Your task to perform on an android device: add a contact Image 0: 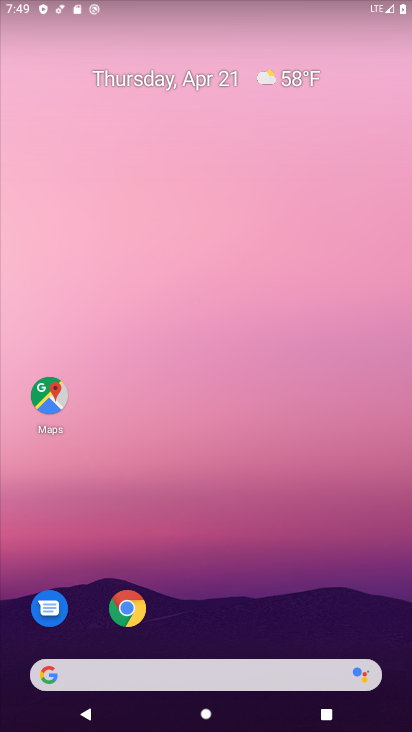
Step 0: drag from (296, 589) to (254, 120)
Your task to perform on an android device: add a contact Image 1: 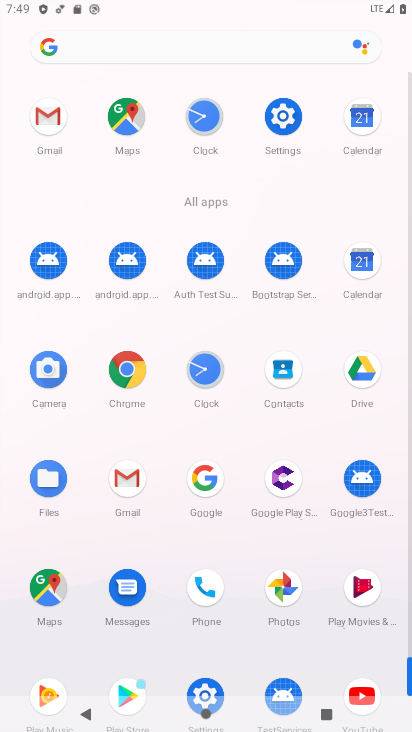
Step 1: click (282, 370)
Your task to perform on an android device: add a contact Image 2: 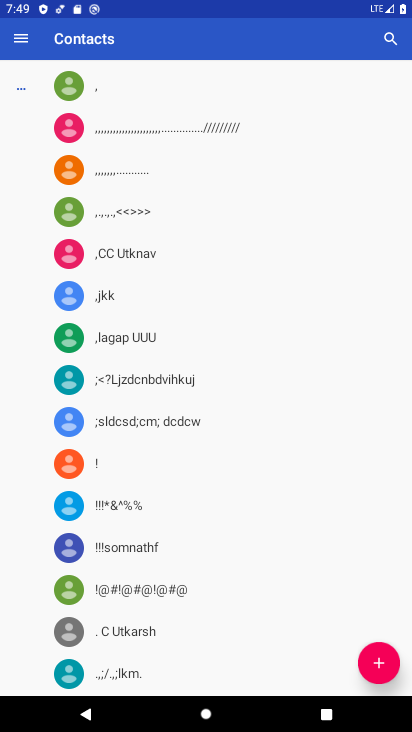
Step 2: click (370, 658)
Your task to perform on an android device: add a contact Image 3: 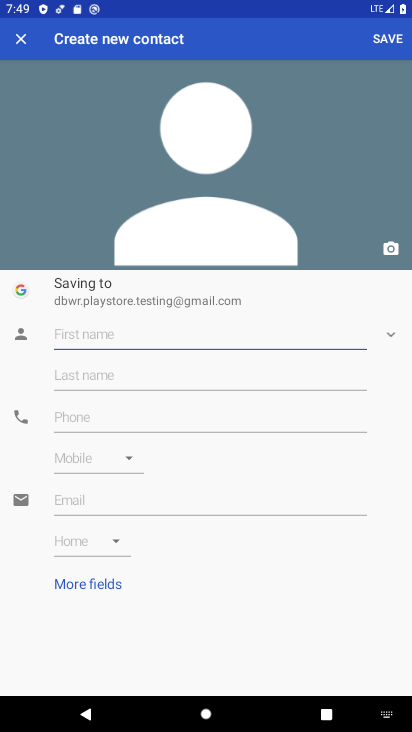
Step 3: type "Vidyadhar"
Your task to perform on an android device: add a contact Image 4: 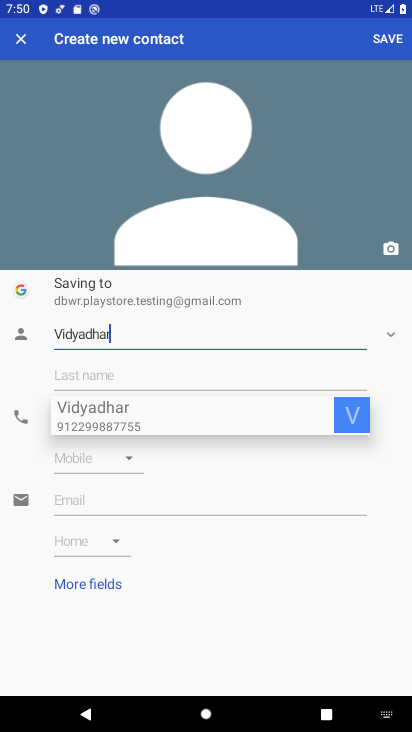
Step 4: type " Prayagwasi"
Your task to perform on an android device: add a contact Image 5: 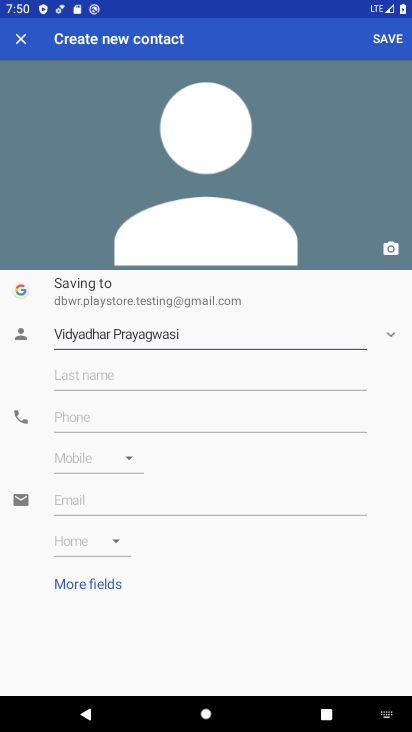
Step 5: click (311, 424)
Your task to perform on an android device: add a contact Image 6: 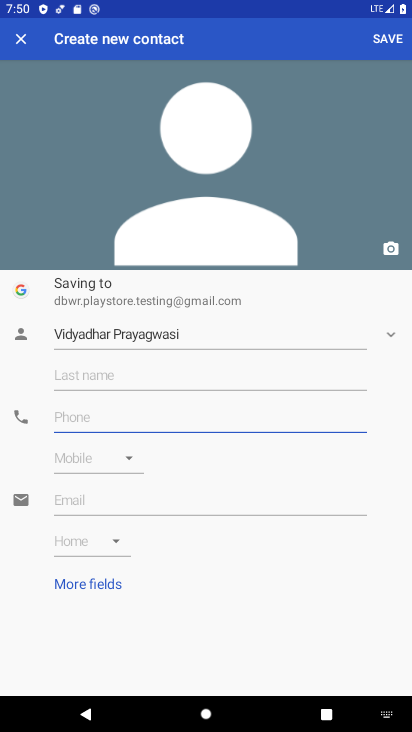
Step 6: type "919987654321"
Your task to perform on an android device: add a contact Image 7: 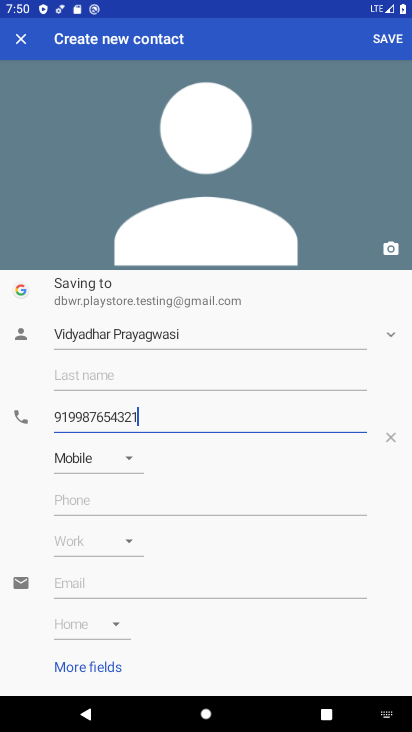
Step 7: type "0"
Your task to perform on an android device: add a contact Image 8: 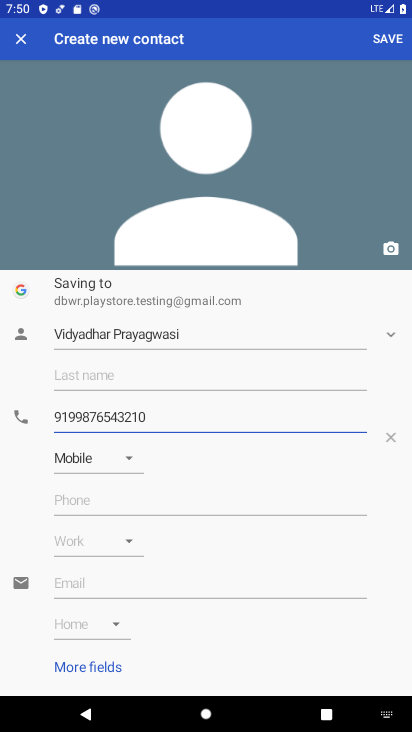
Step 8: click (394, 40)
Your task to perform on an android device: add a contact Image 9: 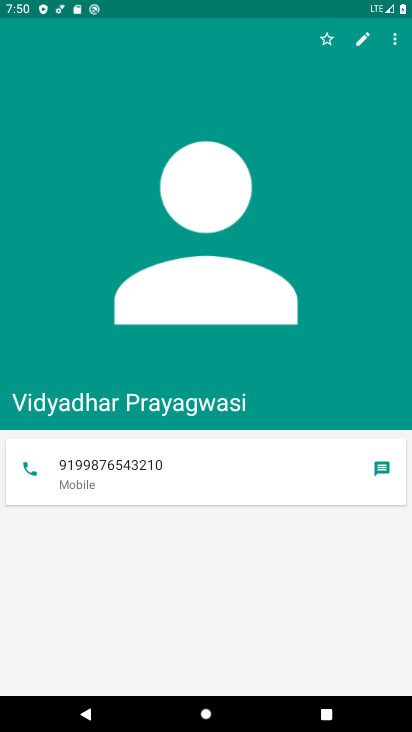
Step 9: task complete